Your task to perform on an android device: Set the phone to "Do not disturb". Image 0: 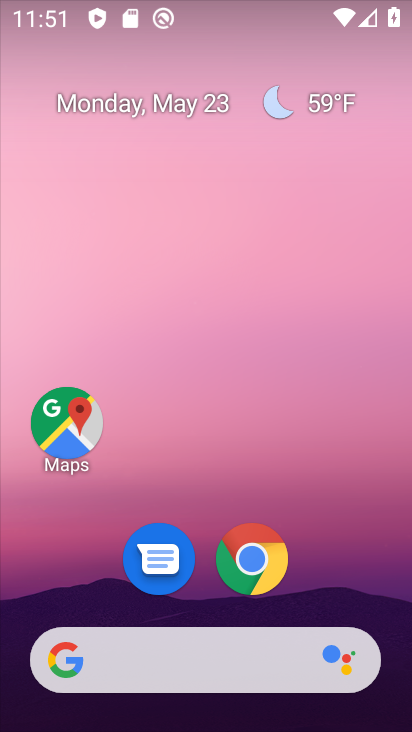
Step 0: drag from (209, 0) to (267, 439)
Your task to perform on an android device: Set the phone to "Do not disturb". Image 1: 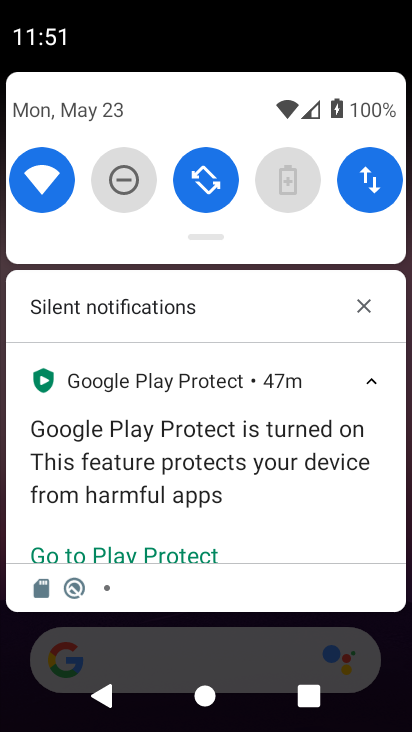
Step 1: click (117, 181)
Your task to perform on an android device: Set the phone to "Do not disturb". Image 2: 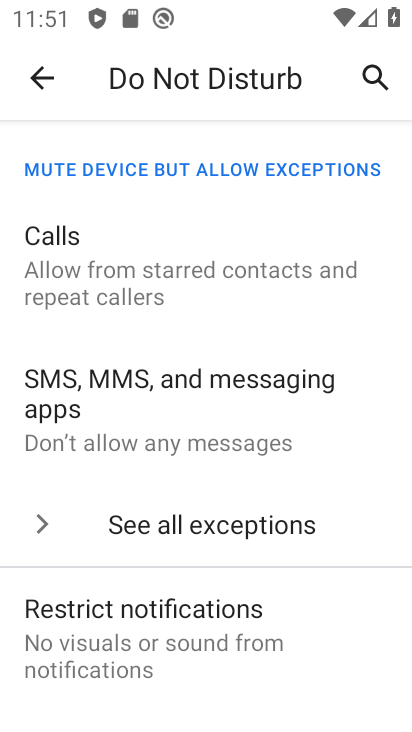
Step 2: task complete